Your task to perform on an android device: Open Chrome and go to the settings page Image 0: 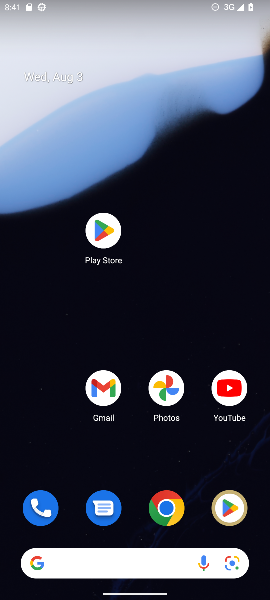
Step 0: drag from (140, 547) to (98, 43)
Your task to perform on an android device: Open Chrome and go to the settings page Image 1: 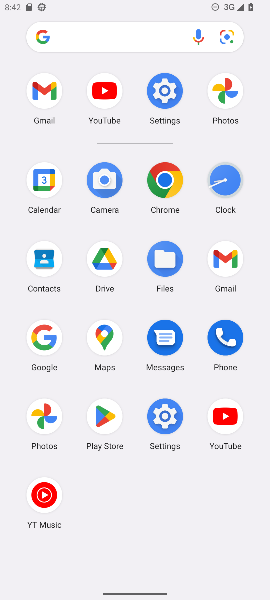
Step 1: click (156, 187)
Your task to perform on an android device: Open Chrome and go to the settings page Image 2: 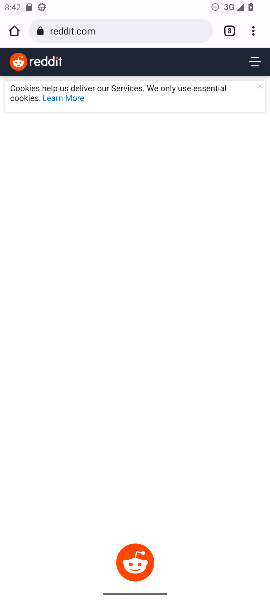
Step 2: click (254, 31)
Your task to perform on an android device: Open Chrome and go to the settings page Image 3: 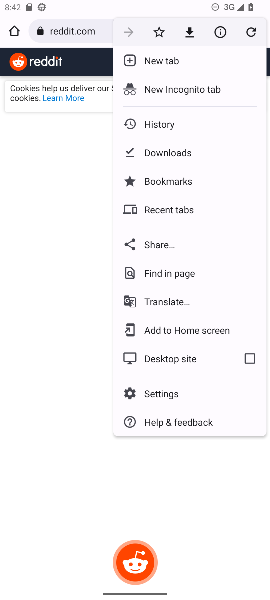
Step 3: click (143, 386)
Your task to perform on an android device: Open Chrome and go to the settings page Image 4: 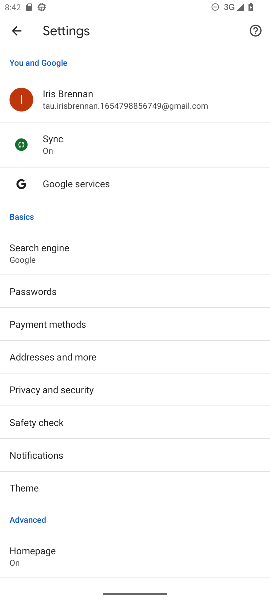
Step 4: drag from (83, 490) to (53, 58)
Your task to perform on an android device: Open Chrome and go to the settings page Image 5: 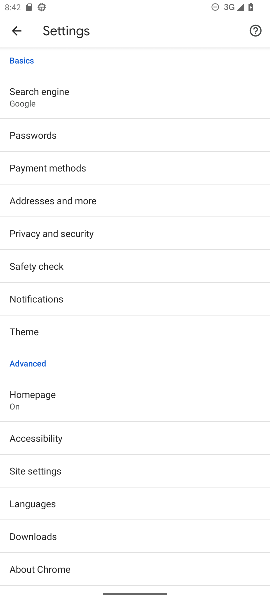
Step 5: click (144, 591)
Your task to perform on an android device: Open Chrome and go to the settings page Image 6: 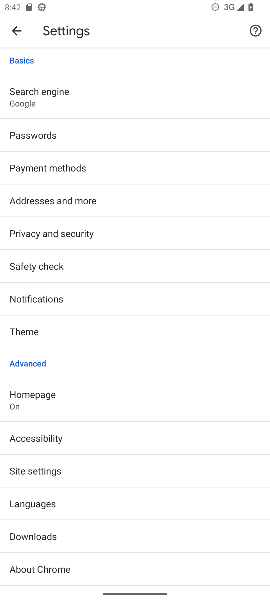
Step 6: task complete